Your task to perform on an android device: Show me popular games on the Play Store Image 0: 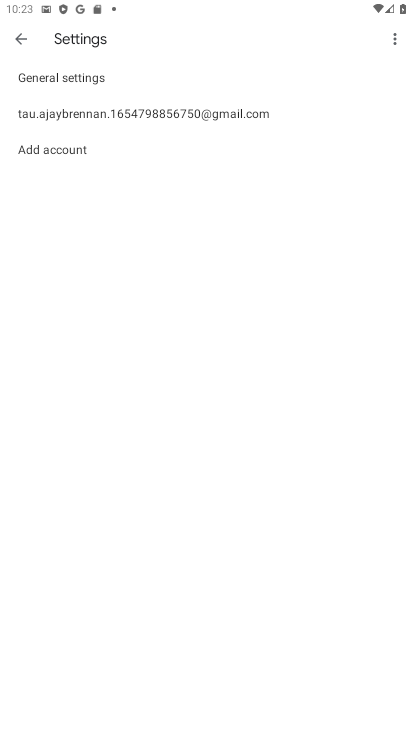
Step 0: press home button
Your task to perform on an android device: Show me popular games on the Play Store Image 1: 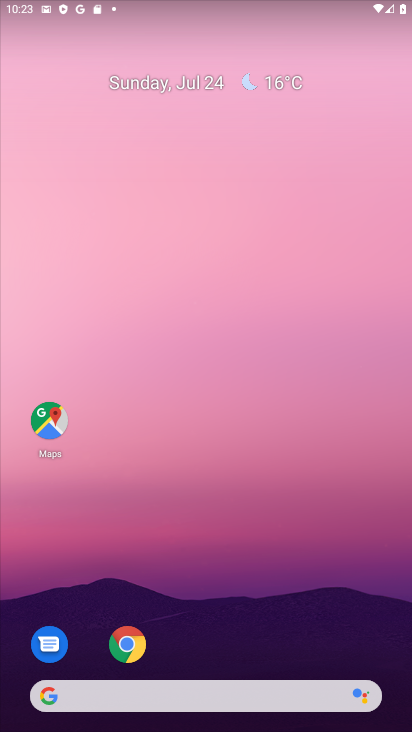
Step 1: drag from (262, 629) to (234, 401)
Your task to perform on an android device: Show me popular games on the Play Store Image 2: 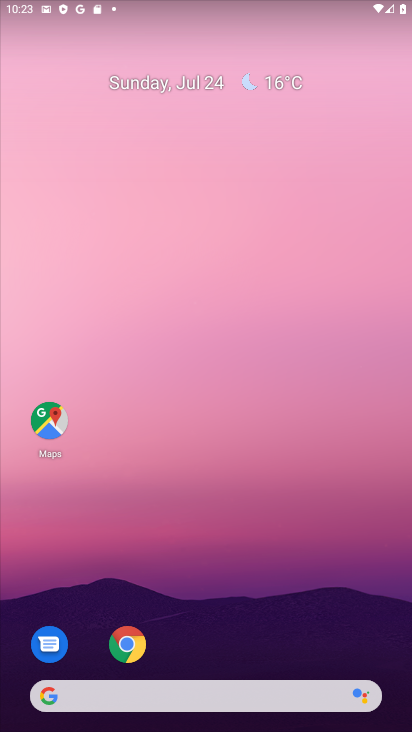
Step 2: drag from (209, 649) to (131, 183)
Your task to perform on an android device: Show me popular games on the Play Store Image 3: 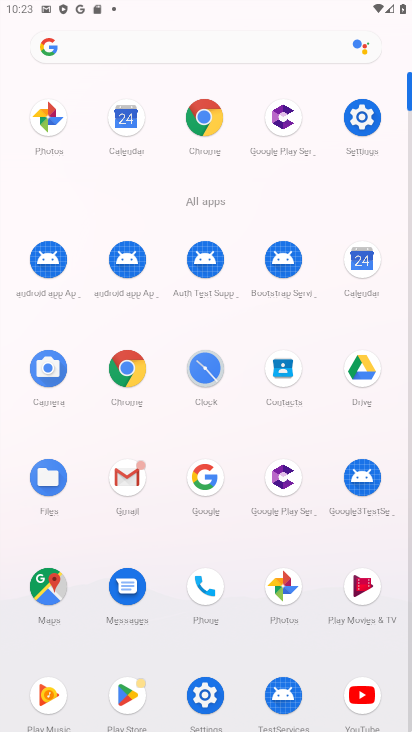
Step 3: click (141, 691)
Your task to perform on an android device: Show me popular games on the Play Store Image 4: 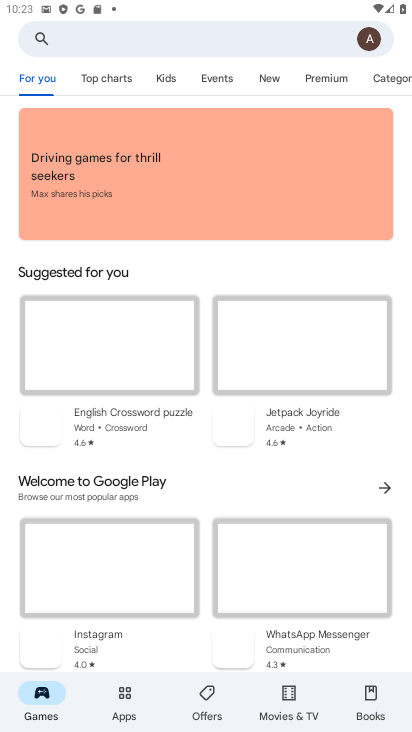
Step 4: click (135, 698)
Your task to perform on an android device: Show me popular games on the Play Store Image 5: 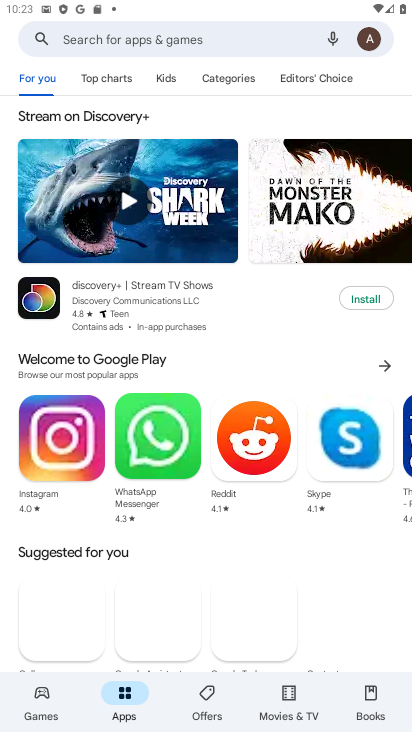
Step 5: click (43, 701)
Your task to perform on an android device: Show me popular games on the Play Store Image 6: 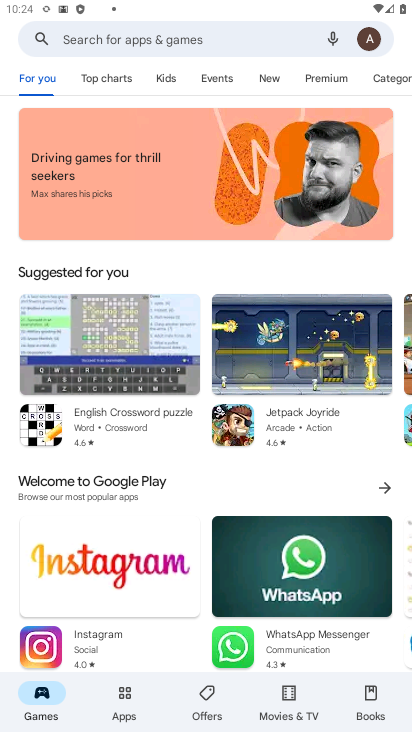
Step 6: task complete